Your task to perform on an android device: remove spam from my inbox in the gmail app Image 0: 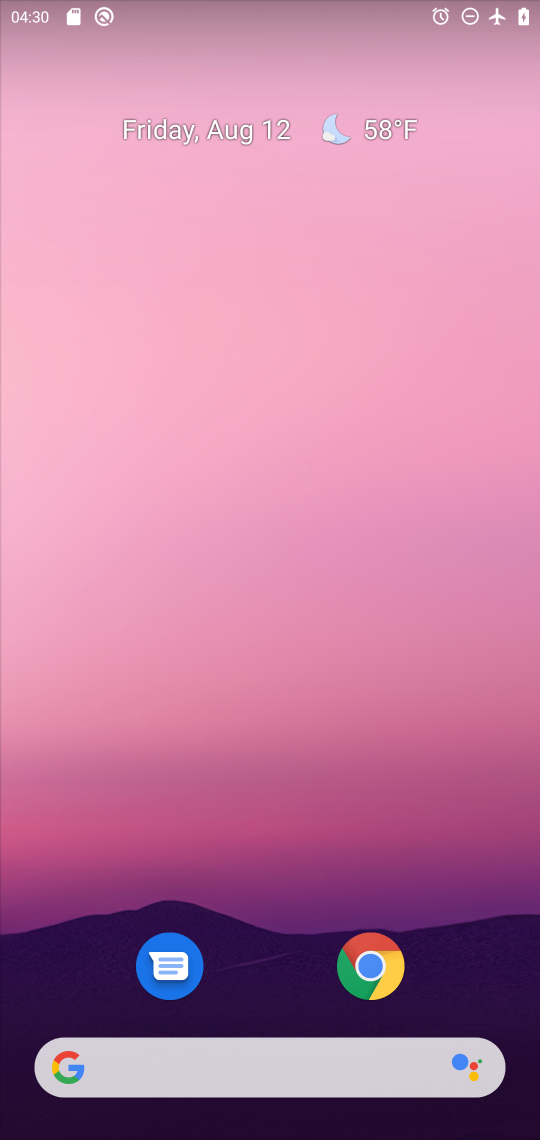
Step 0: drag from (243, 883) to (350, 64)
Your task to perform on an android device: remove spam from my inbox in the gmail app Image 1: 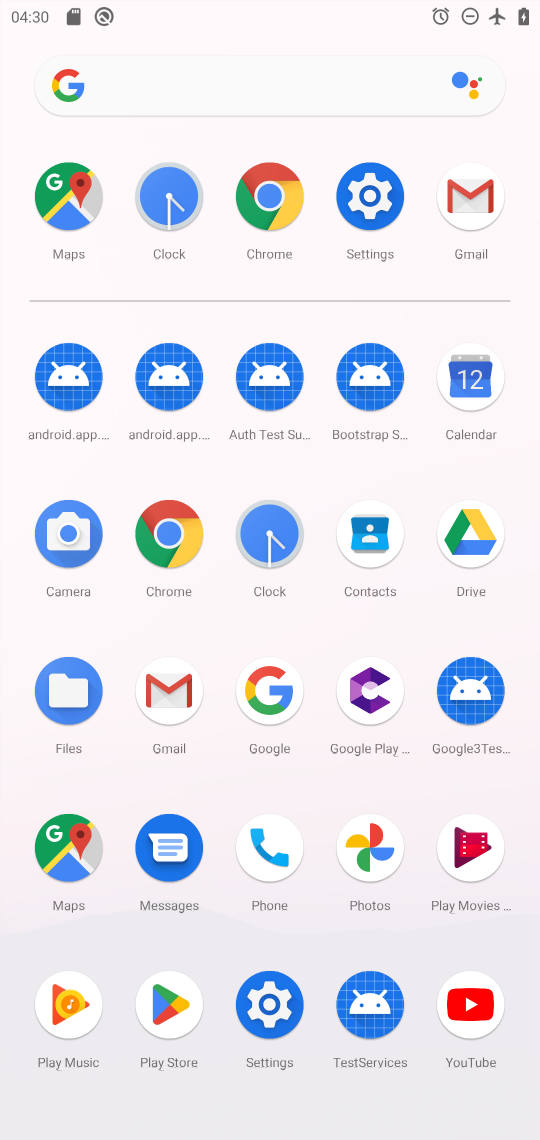
Step 1: click (165, 676)
Your task to perform on an android device: remove spam from my inbox in the gmail app Image 2: 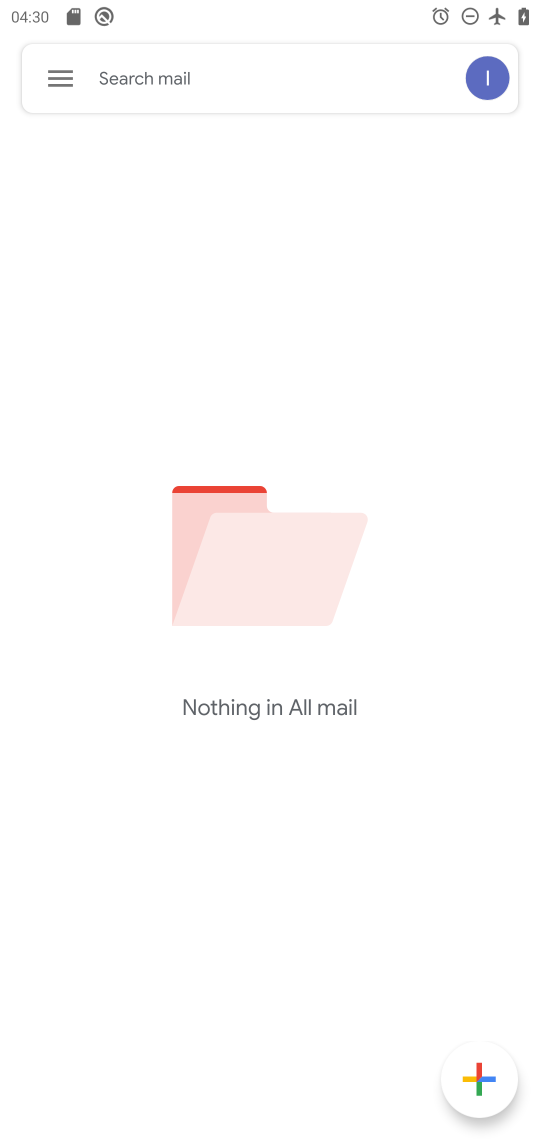
Step 2: click (48, 86)
Your task to perform on an android device: remove spam from my inbox in the gmail app Image 3: 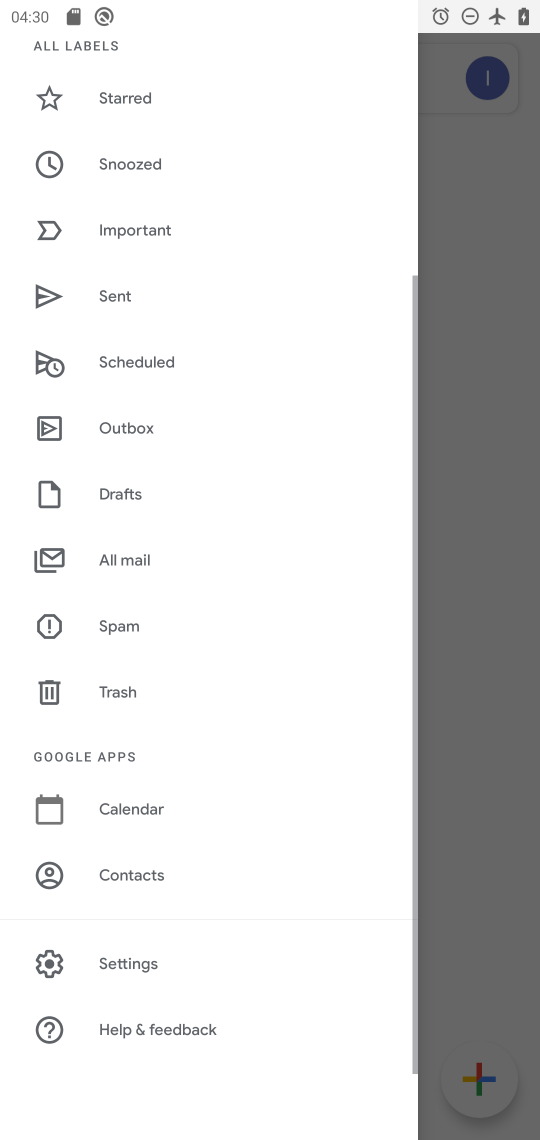
Step 3: drag from (189, 150) to (165, 1102)
Your task to perform on an android device: remove spam from my inbox in the gmail app Image 4: 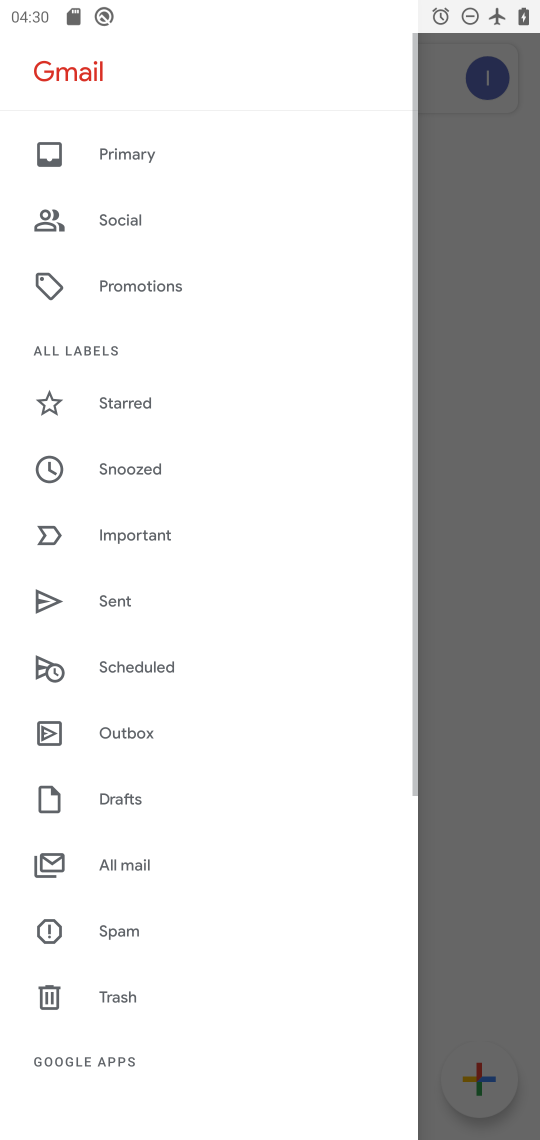
Step 4: click (121, 152)
Your task to perform on an android device: remove spam from my inbox in the gmail app Image 5: 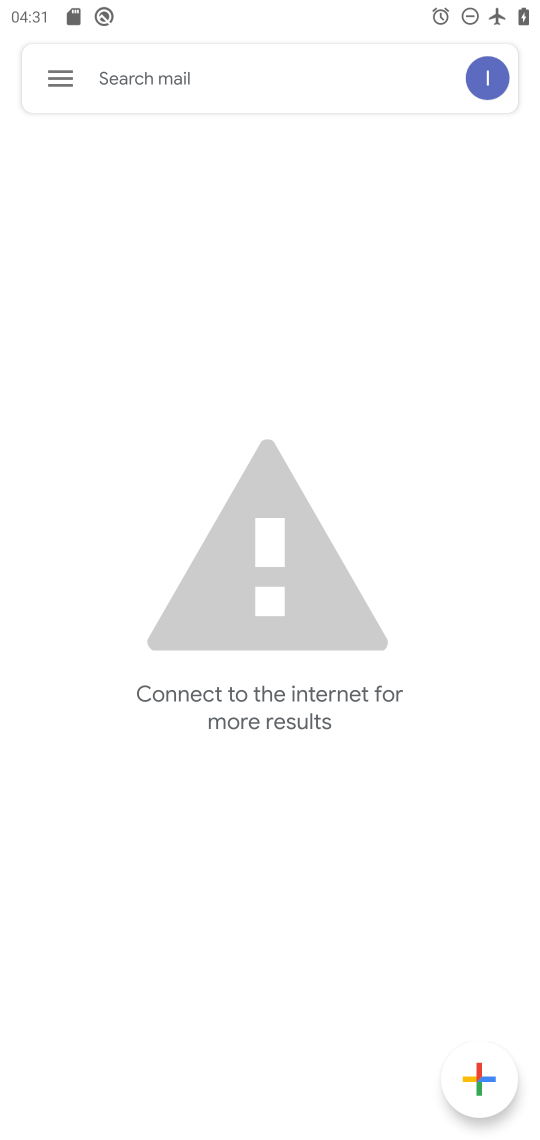
Step 5: task complete